Your task to perform on an android device: Go to calendar. Show me events next week Image 0: 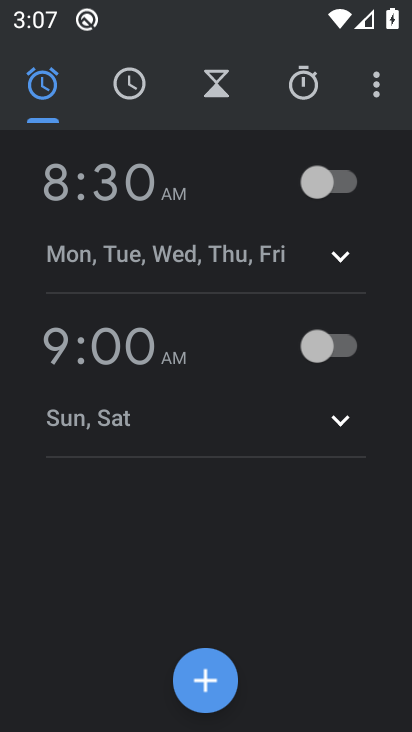
Step 0: press home button
Your task to perform on an android device: Go to calendar. Show me events next week Image 1: 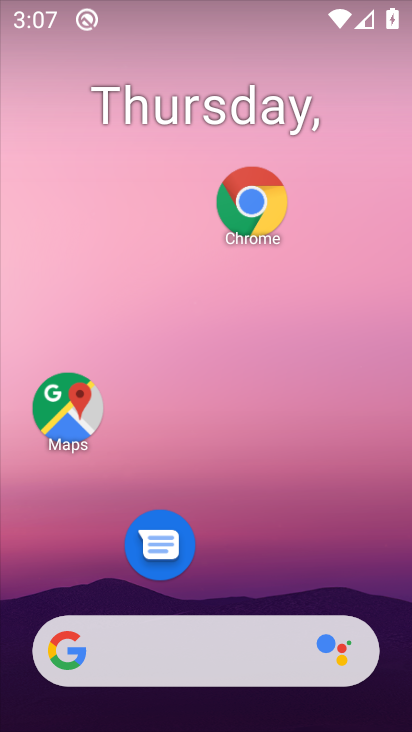
Step 1: click (160, 397)
Your task to perform on an android device: Go to calendar. Show me events next week Image 2: 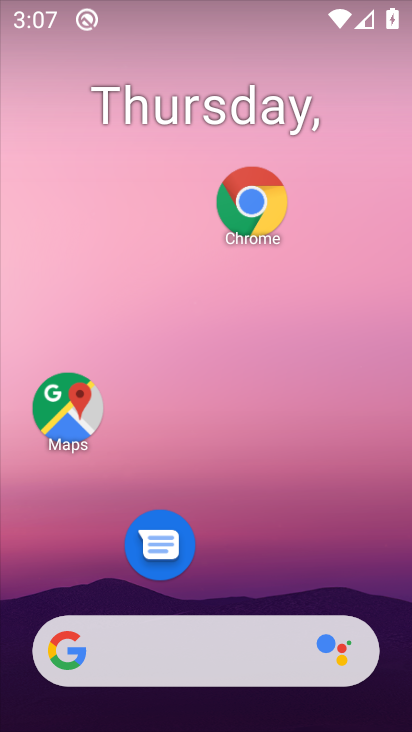
Step 2: drag from (195, 661) to (147, 198)
Your task to perform on an android device: Go to calendar. Show me events next week Image 3: 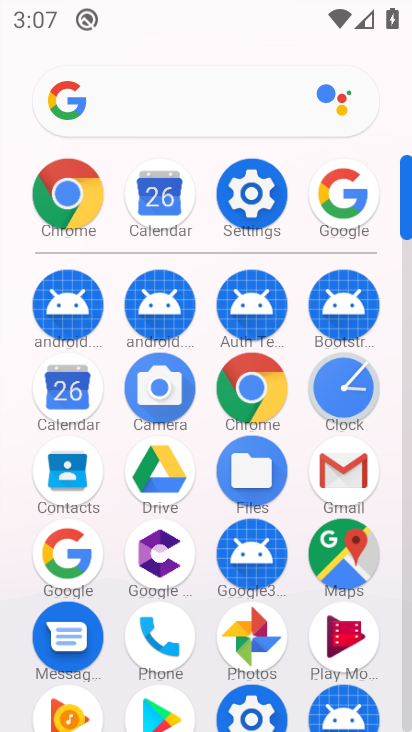
Step 3: click (147, 200)
Your task to perform on an android device: Go to calendar. Show me events next week Image 4: 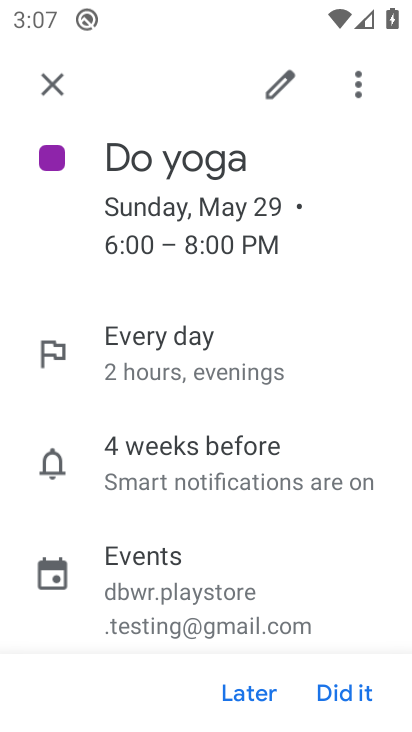
Step 4: click (51, 70)
Your task to perform on an android device: Go to calendar. Show me events next week Image 5: 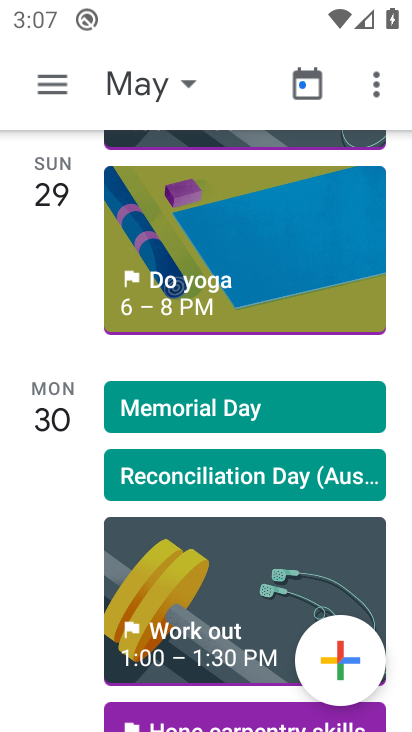
Step 5: click (145, 82)
Your task to perform on an android device: Go to calendar. Show me events next week Image 6: 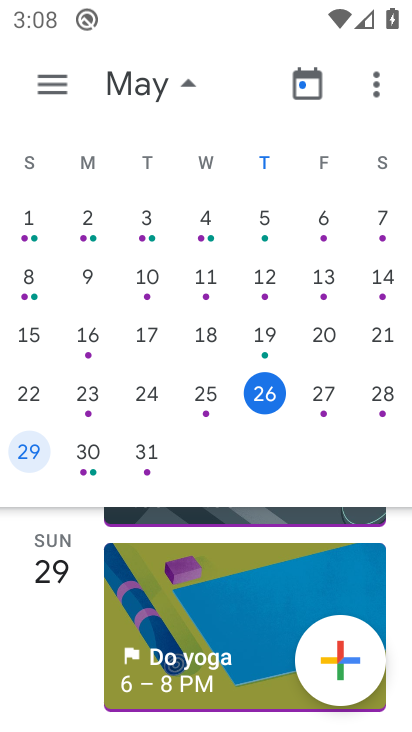
Step 6: click (92, 456)
Your task to perform on an android device: Go to calendar. Show me events next week Image 7: 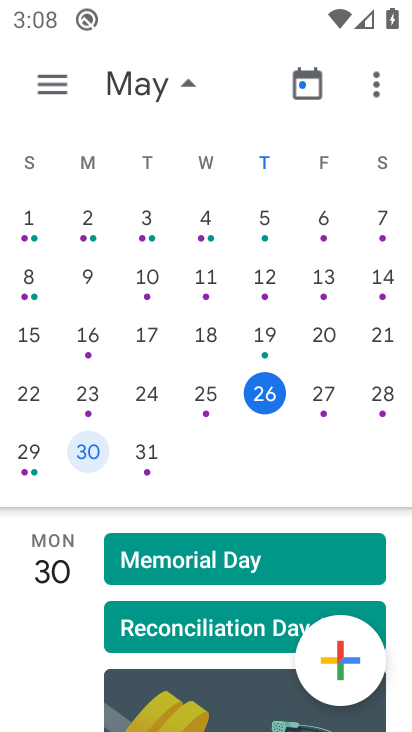
Step 7: click (192, 632)
Your task to perform on an android device: Go to calendar. Show me events next week Image 8: 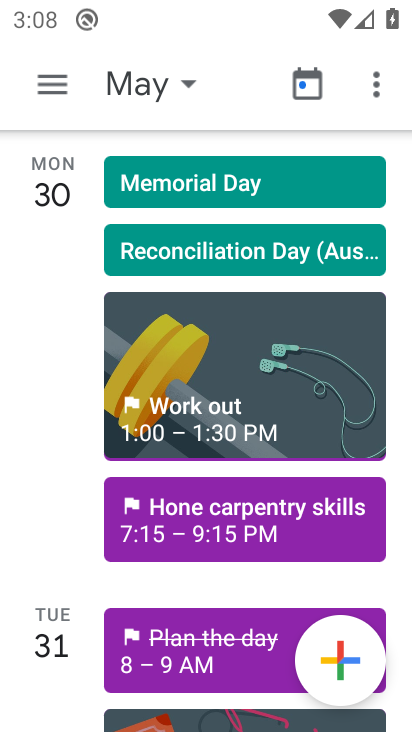
Step 8: task complete